Your task to perform on an android device: check out phone information Image 0: 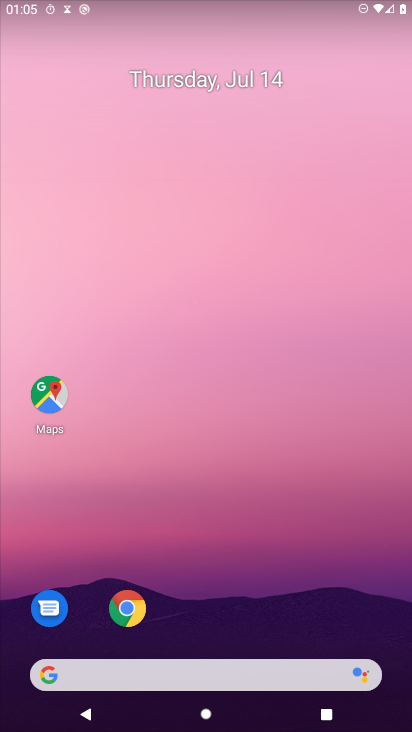
Step 0: press home button
Your task to perform on an android device: check out phone information Image 1: 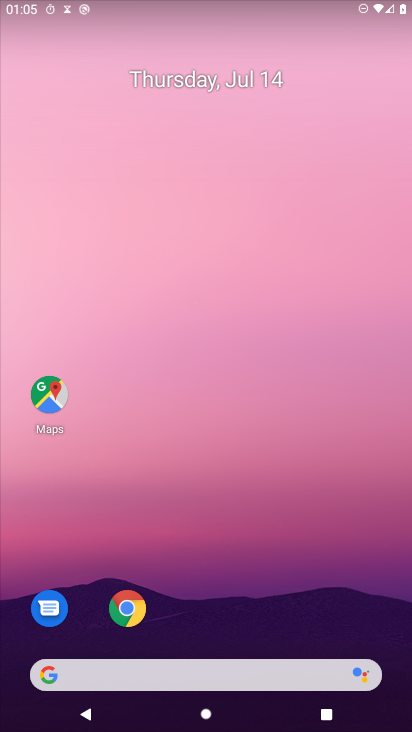
Step 1: drag from (331, 581) to (270, 99)
Your task to perform on an android device: check out phone information Image 2: 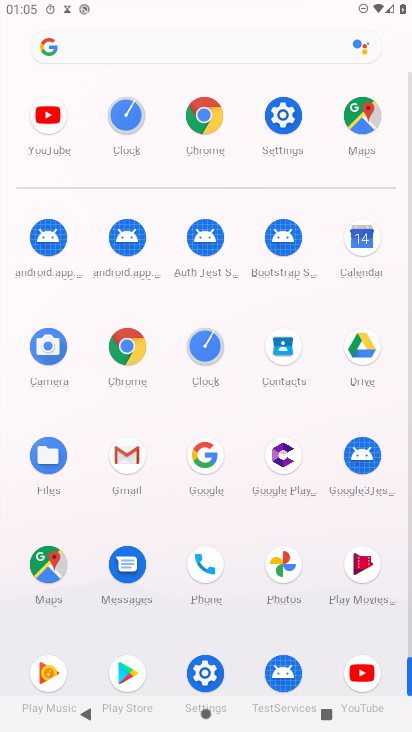
Step 2: click (195, 675)
Your task to perform on an android device: check out phone information Image 3: 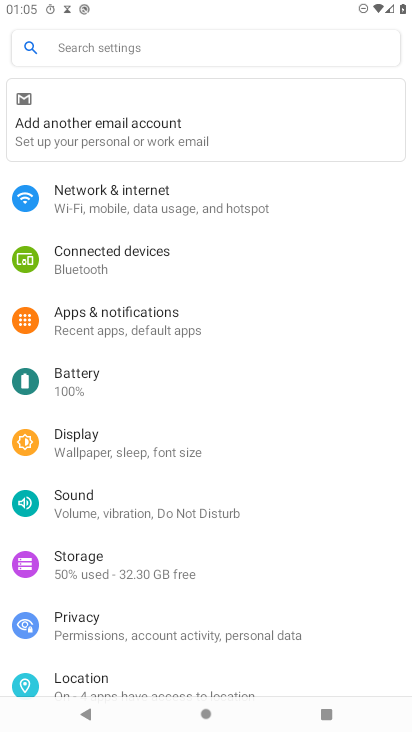
Step 3: drag from (245, 681) to (280, 167)
Your task to perform on an android device: check out phone information Image 4: 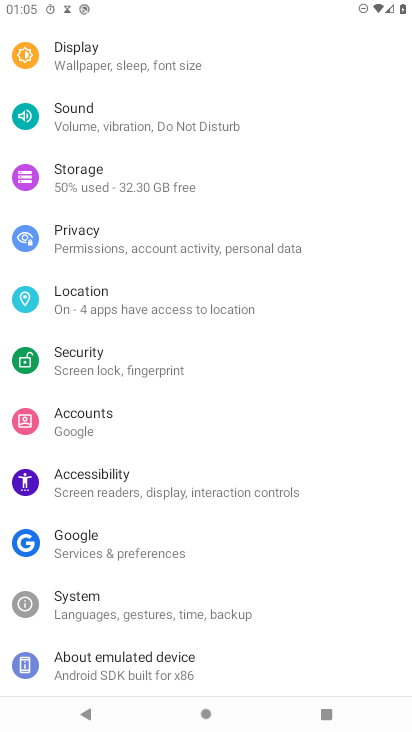
Step 4: click (162, 668)
Your task to perform on an android device: check out phone information Image 5: 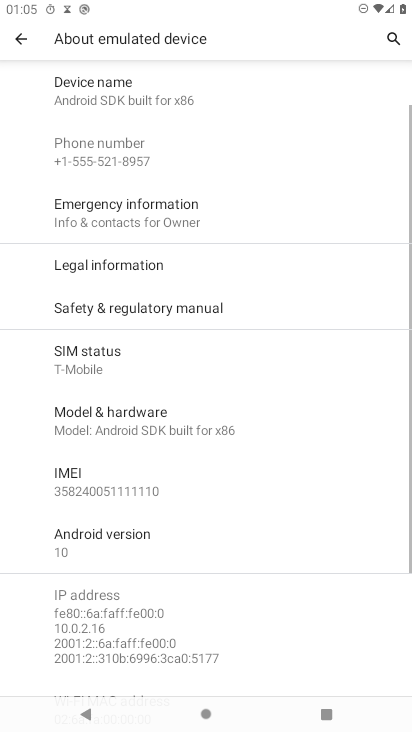
Step 5: click (122, 224)
Your task to perform on an android device: check out phone information Image 6: 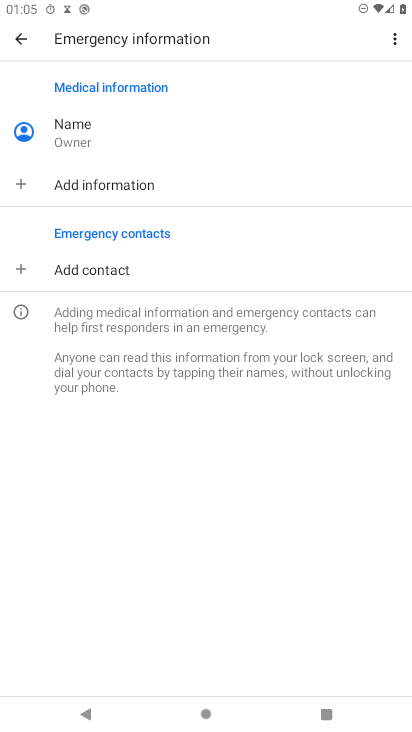
Step 6: task complete